Your task to perform on an android device: toggle airplane mode Image 0: 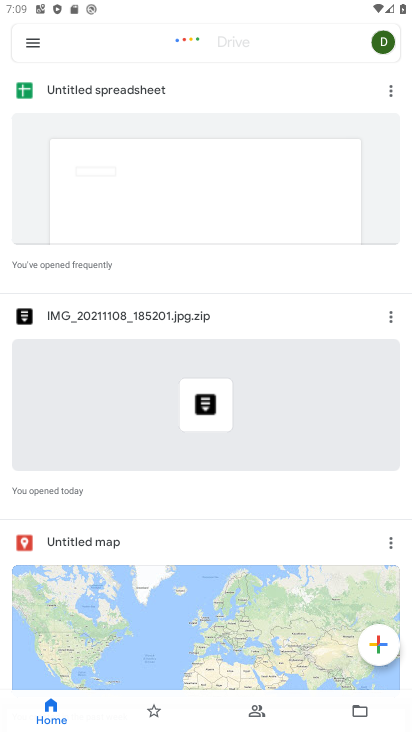
Step 0: press home button
Your task to perform on an android device: toggle airplane mode Image 1: 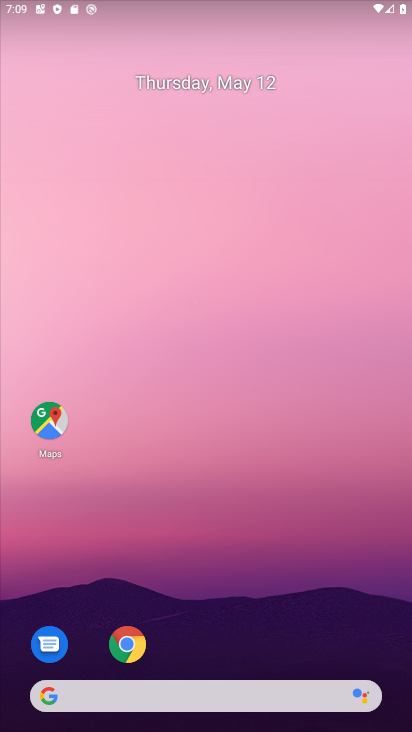
Step 1: drag from (229, 438) to (208, 284)
Your task to perform on an android device: toggle airplane mode Image 2: 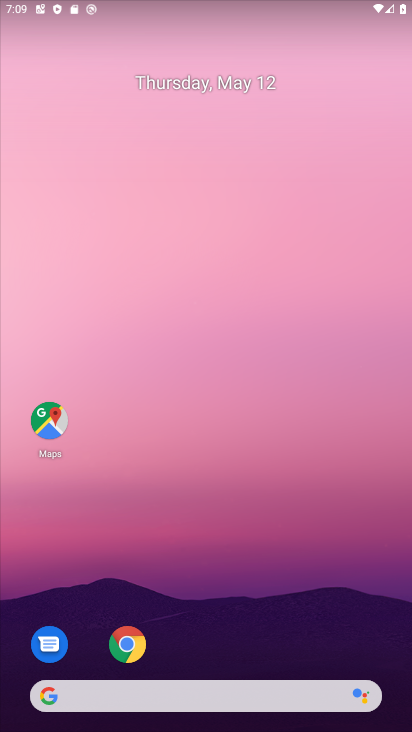
Step 2: drag from (285, 709) to (160, 191)
Your task to perform on an android device: toggle airplane mode Image 3: 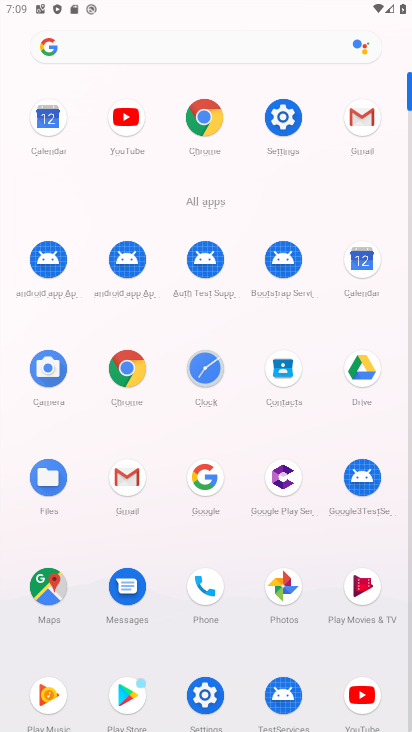
Step 3: click (275, 122)
Your task to perform on an android device: toggle airplane mode Image 4: 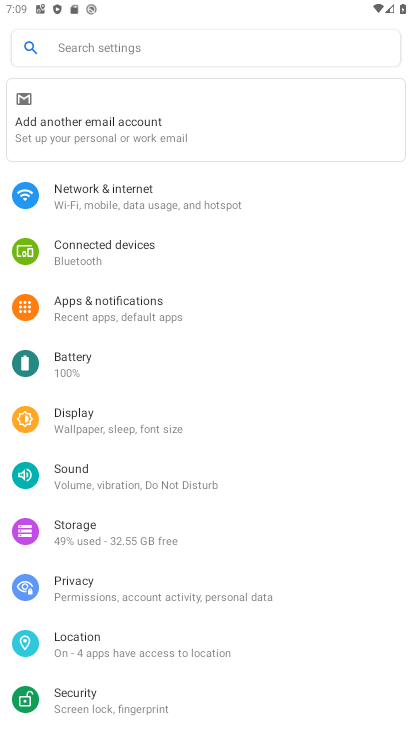
Step 4: click (169, 205)
Your task to perform on an android device: toggle airplane mode Image 5: 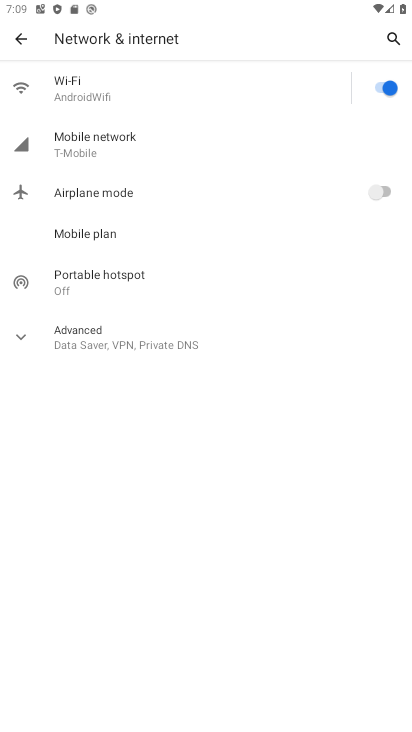
Step 5: click (227, 198)
Your task to perform on an android device: toggle airplane mode Image 6: 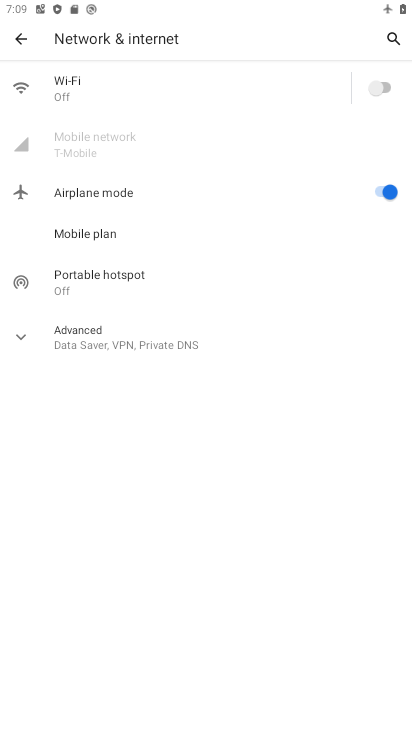
Step 6: click (227, 197)
Your task to perform on an android device: toggle airplane mode Image 7: 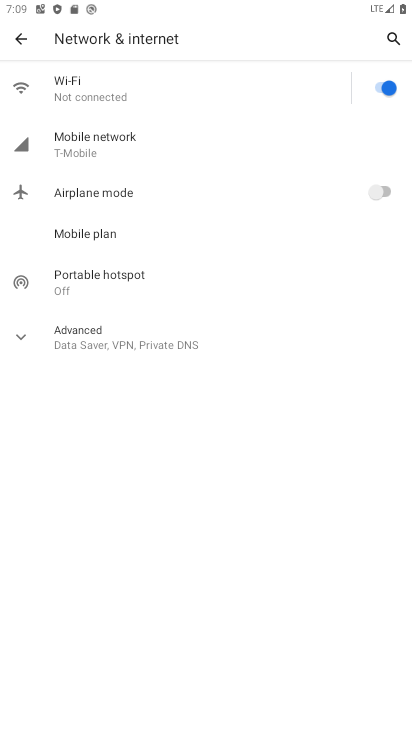
Step 7: task complete